Your task to perform on an android device: Search for Italian restaurants on Maps Image 0: 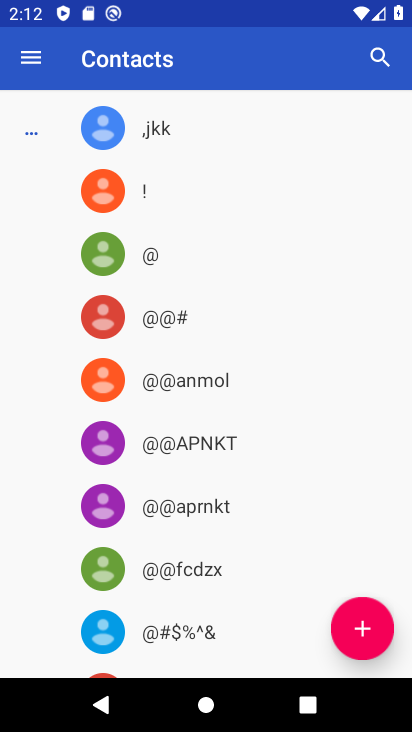
Step 0: press home button
Your task to perform on an android device: Search for Italian restaurants on Maps Image 1: 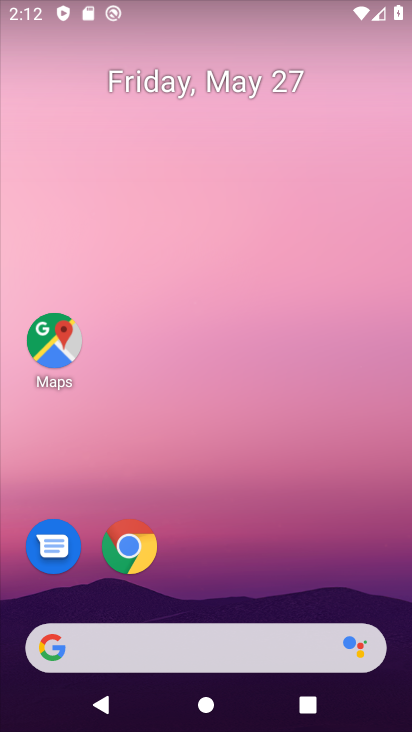
Step 1: click (35, 364)
Your task to perform on an android device: Search for Italian restaurants on Maps Image 2: 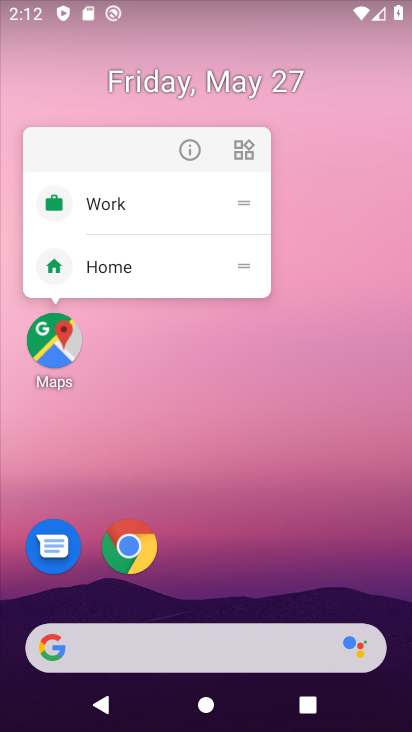
Step 2: click (36, 359)
Your task to perform on an android device: Search for Italian restaurants on Maps Image 3: 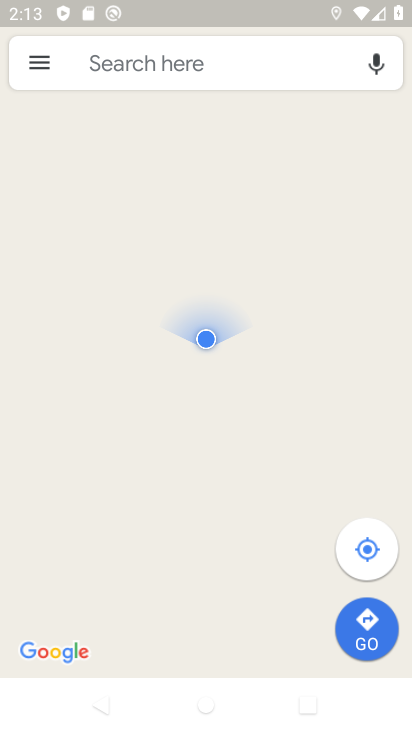
Step 3: click (192, 59)
Your task to perform on an android device: Search for Italian restaurants on Maps Image 4: 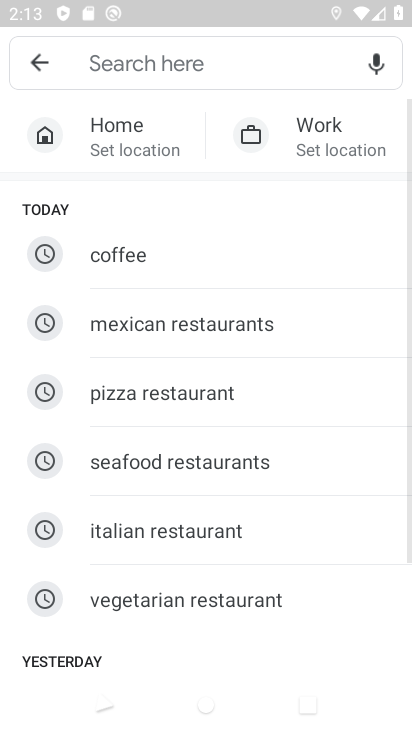
Step 4: click (188, 69)
Your task to perform on an android device: Search for Italian restaurants on Maps Image 5: 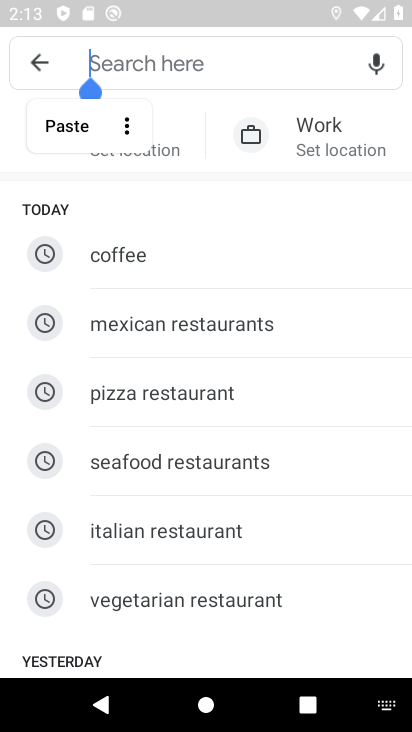
Step 5: click (167, 532)
Your task to perform on an android device: Search for Italian restaurants on Maps Image 6: 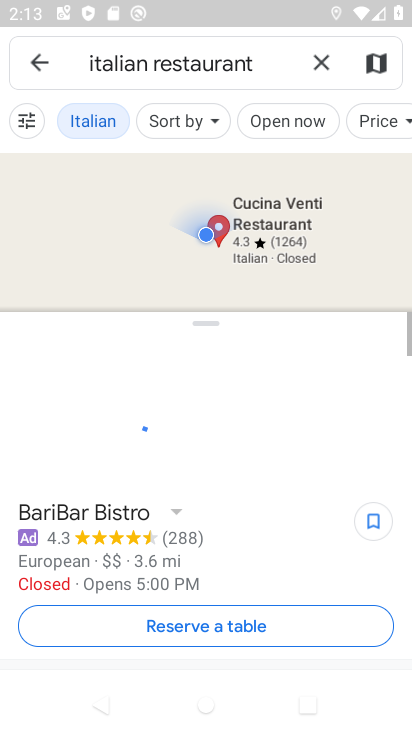
Step 6: task complete